Your task to perform on an android device: turn smart compose on in the gmail app Image 0: 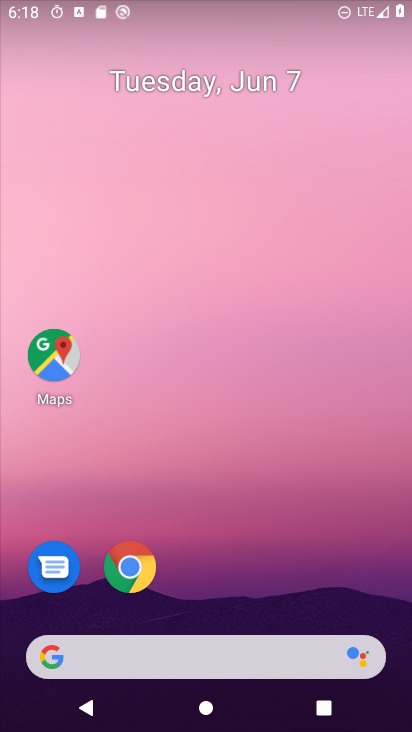
Step 0: drag from (238, 644) to (338, 84)
Your task to perform on an android device: turn smart compose on in the gmail app Image 1: 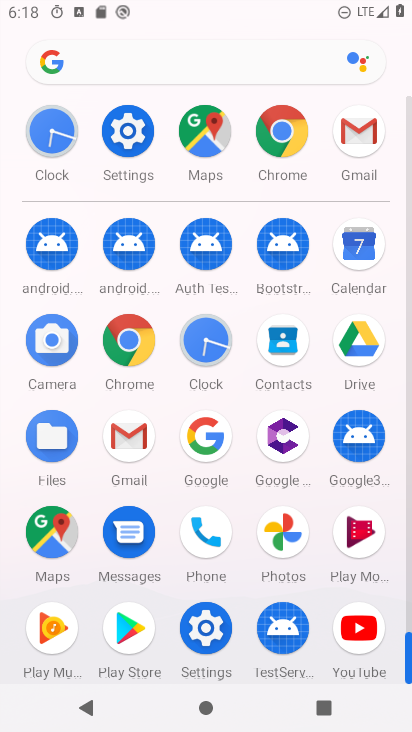
Step 1: click (151, 439)
Your task to perform on an android device: turn smart compose on in the gmail app Image 2: 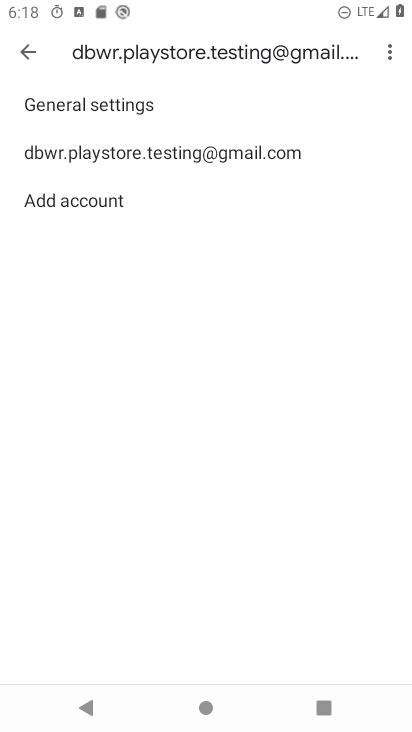
Step 2: click (183, 151)
Your task to perform on an android device: turn smart compose on in the gmail app Image 3: 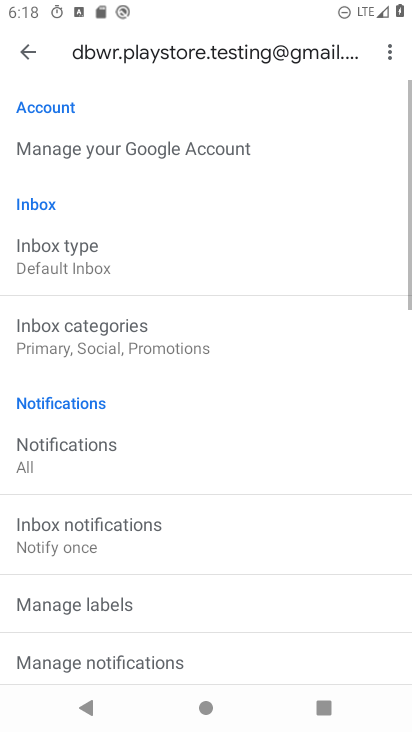
Step 3: task complete